Your task to perform on an android device: open app "PUBG MOBILE" Image 0: 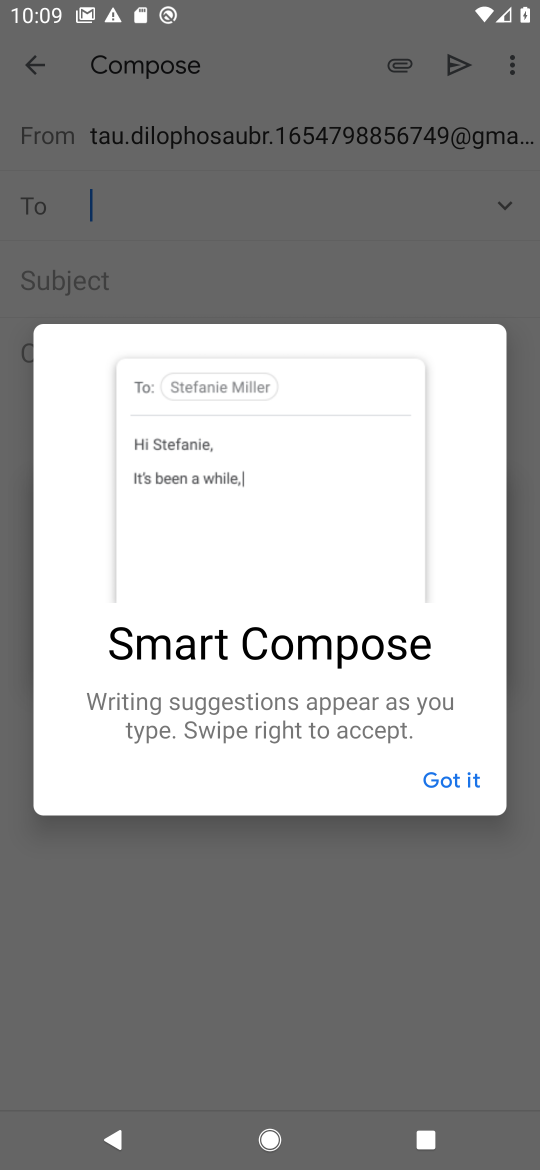
Step 0: click (459, 776)
Your task to perform on an android device: open app "PUBG MOBILE" Image 1: 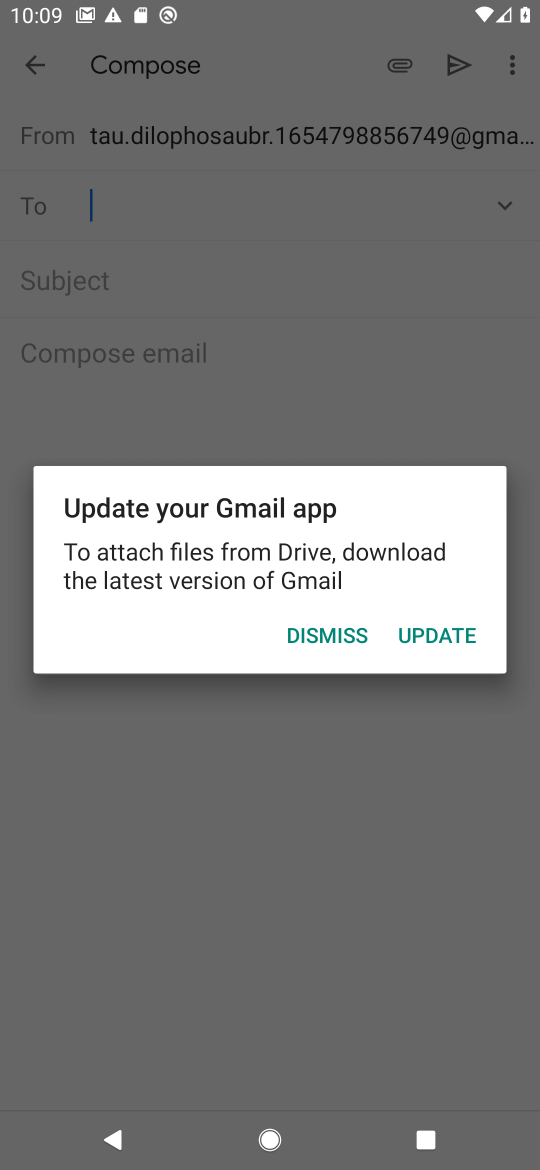
Step 1: press home button
Your task to perform on an android device: open app "PUBG MOBILE" Image 2: 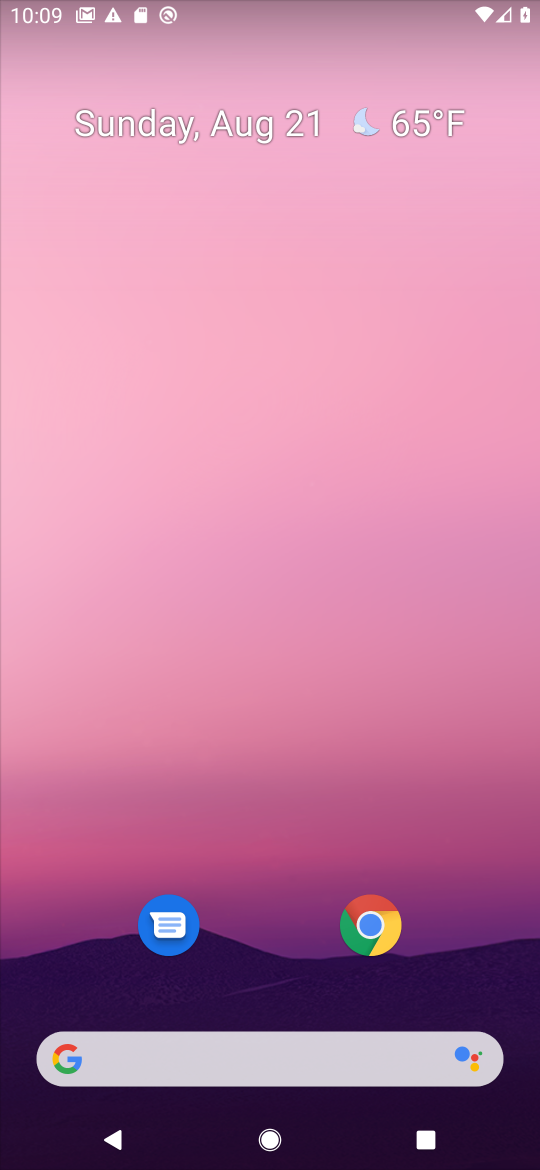
Step 2: drag from (250, 984) to (460, 10)
Your task to perform on an android device: open app "PUBG MOBILE" Image 3: 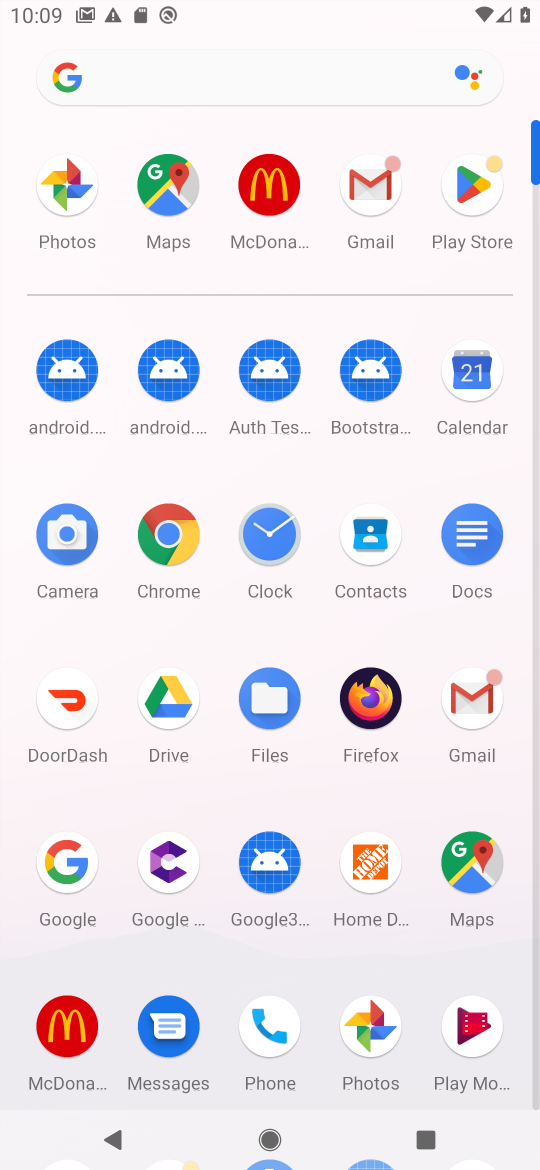
Step 3: click (487, 173)
Your task to perform on an android device: open app "PUBG MOBILE" Image 4: 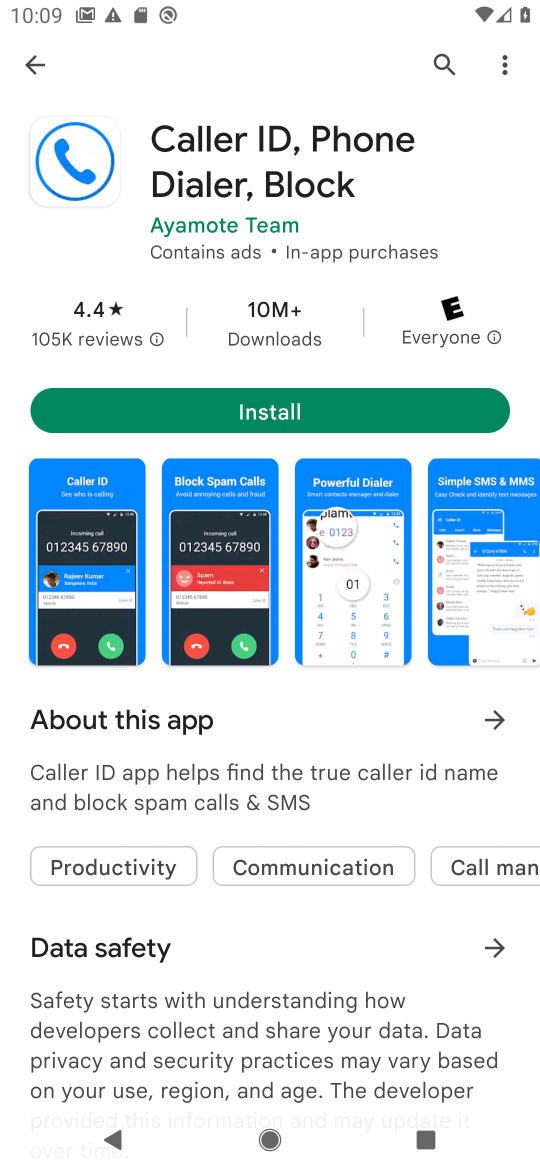
Step 4: click (442, 48)
Your task to perform on an android device: open app "PUBG MOBILE" Image 5: 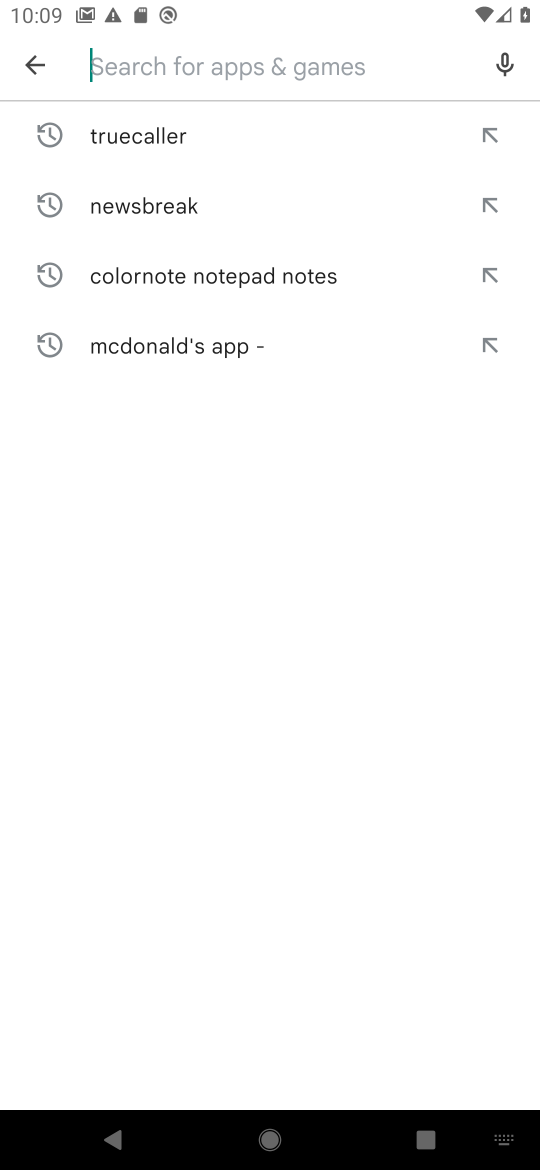
Step 5: click (134, 45)
Your task to perform on an android device: open app "PUBG MOBILE" Image 6: 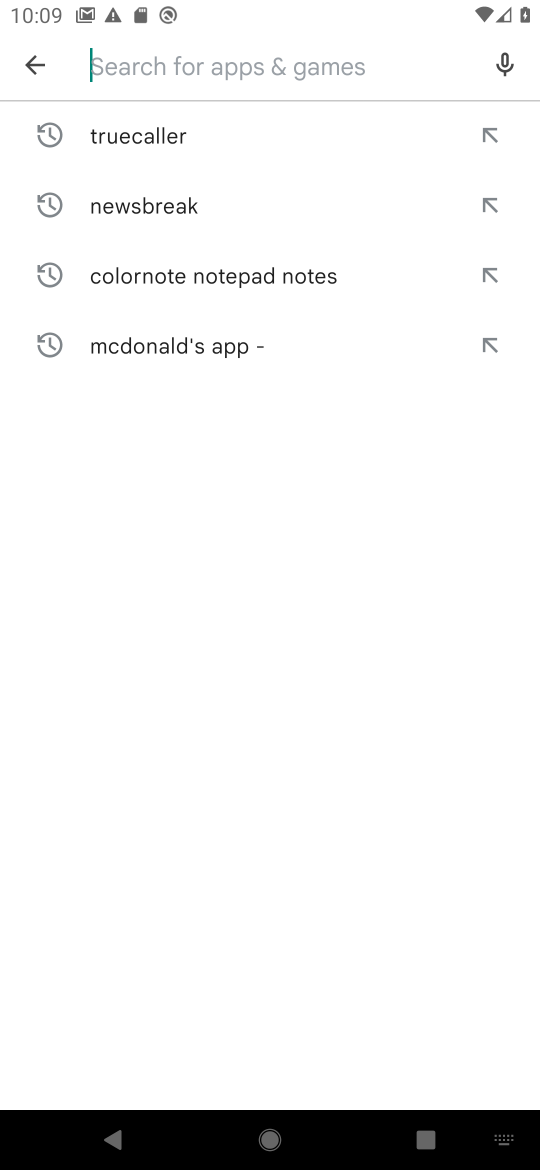
Step 6: type "PUBG MOBILE"
Your task to perform on an android device: open app "PUBG MOBILE" Image 7: 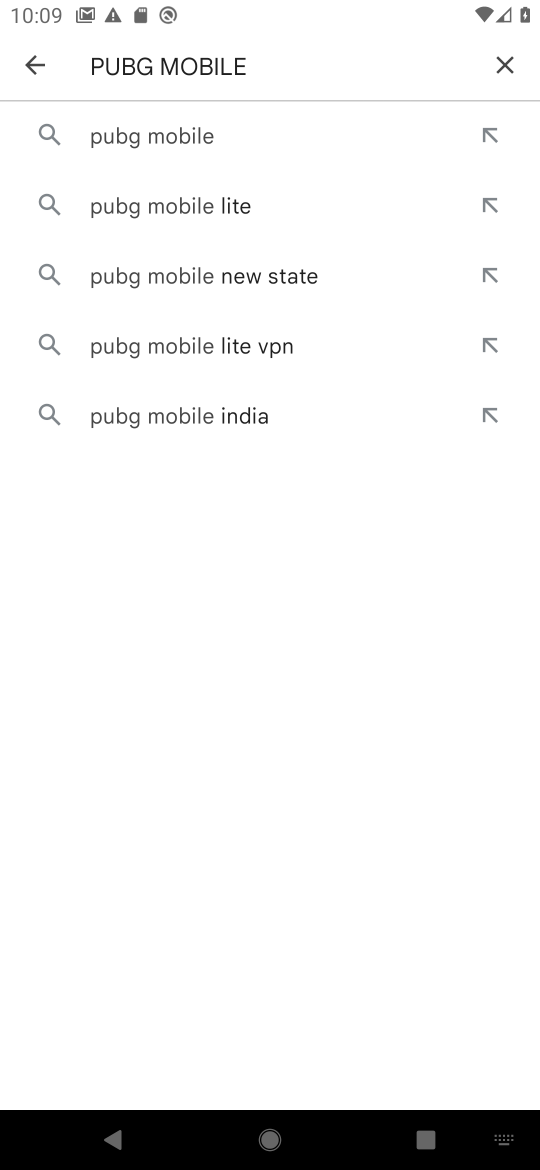
Step 7: click (91, 178)
Your task to perform on an android device: open app "PUBG MOBILE" Image 8: 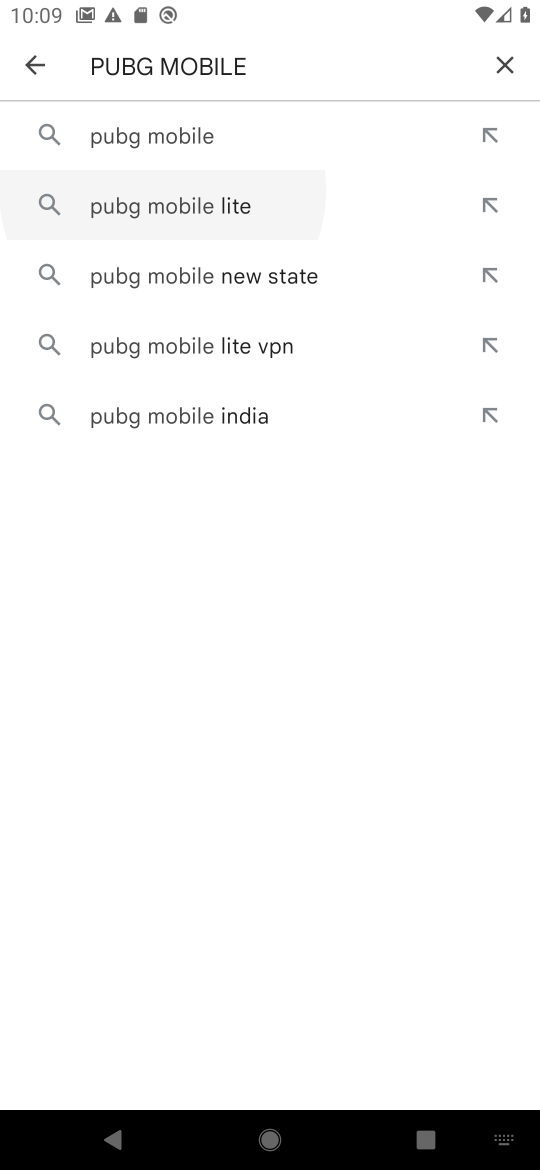
Step 8: click (115, 156)
Your task to perform on an android device: open app "PUBG MOBILE" Image 9: 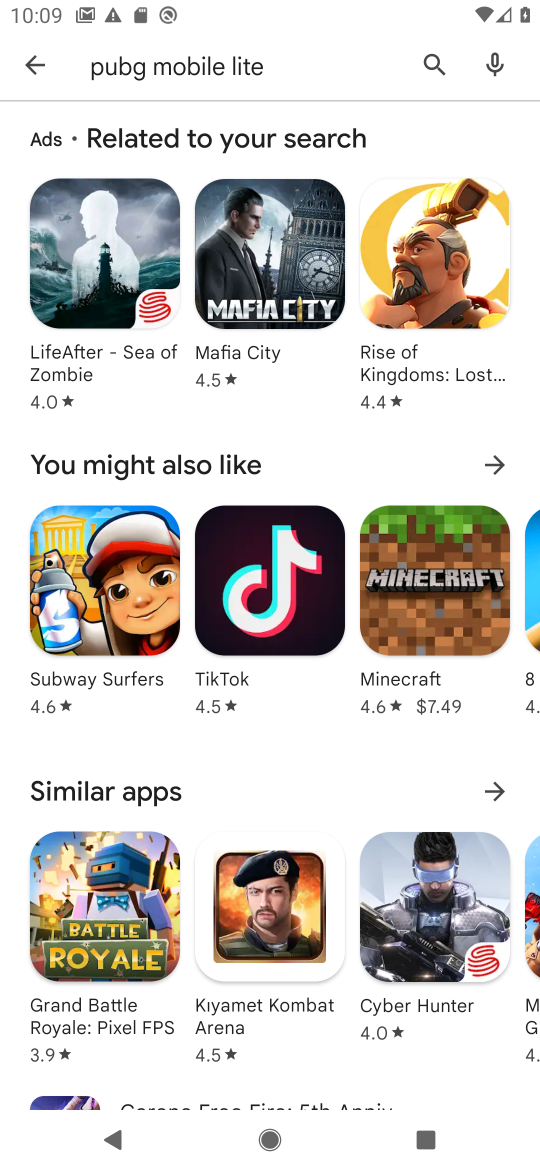
Step 9: task complete